Your task to perform on an android device: set the timer Image 0: 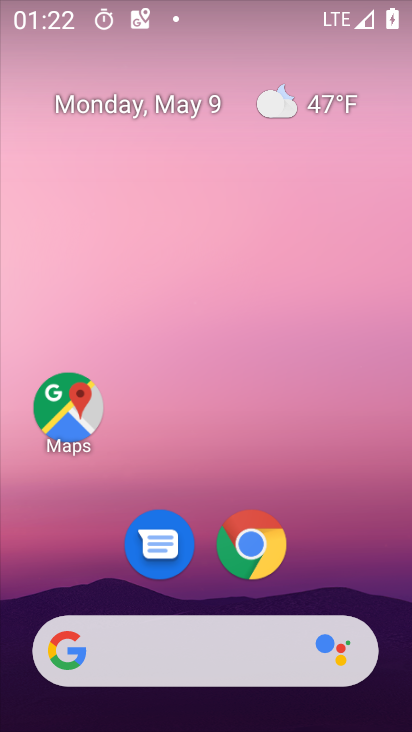
Step 0: drag from (305, 622) to (277, 5)
Your task to perform on an android device: set the timer Image 1: 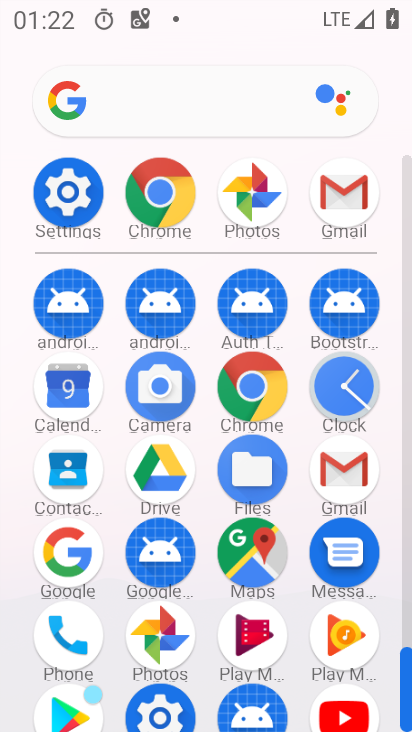
Step 1: click (339, 384)
Your task to perform on an android device: set the timer Image 2: 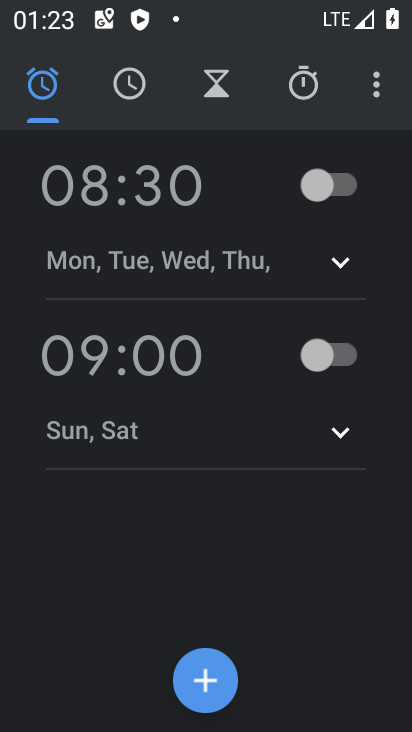
Step 2: click (211, 93)
Your task to perform on an android device: set the timer Image 3: 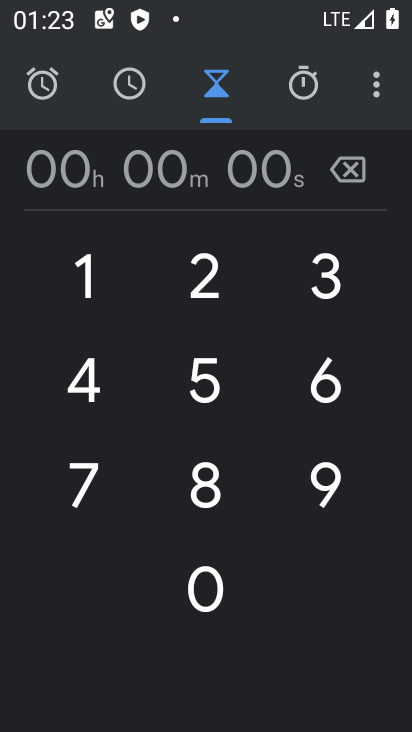
Step 3: click (205, 497)
Your task to perform on an android device: set the timer Image 4: 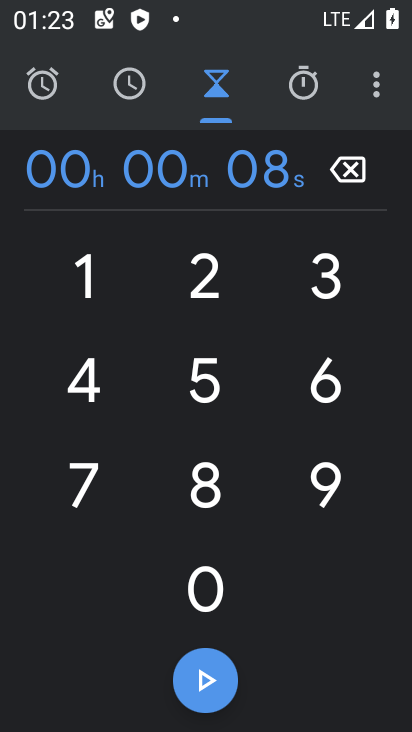
Step 4: click (330, 485)
Your task to perform on an android device: set the timer Image 5: 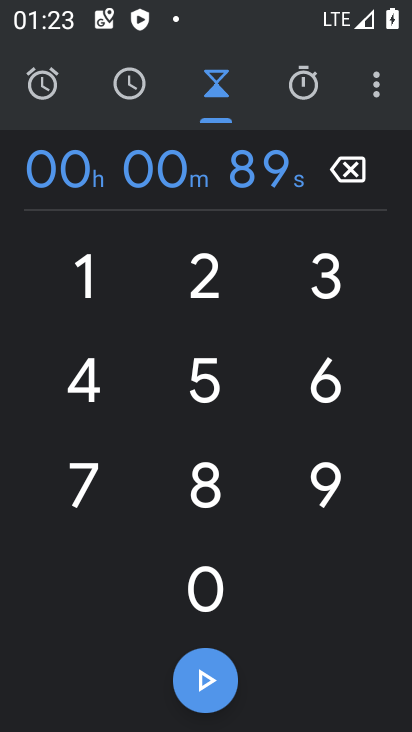
Step 5: click (195, 384)
Your task to perform on an android device: set the timer Image 6: 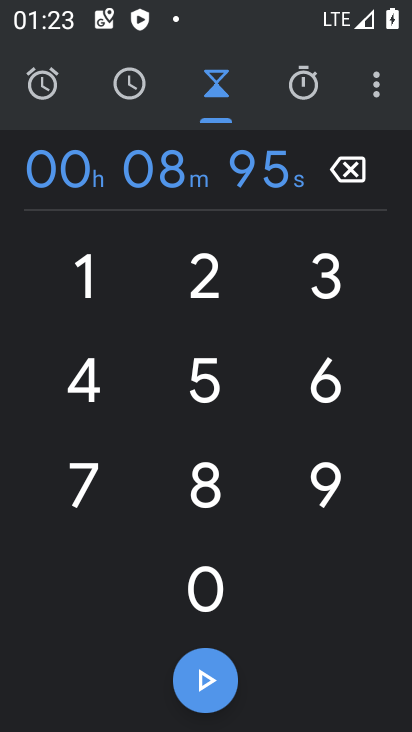
Step 6: click (208, 272)
Your task to perform on an android device: set the timer Image 7: 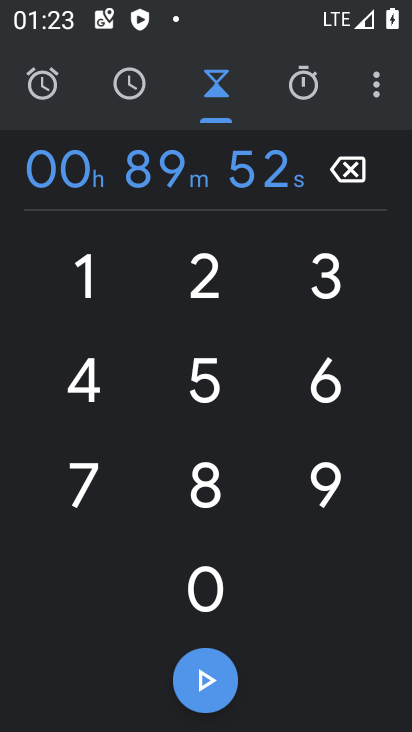
Step 7: click (327, 268)
Your task to perform on an android device: set the timer Image 8: 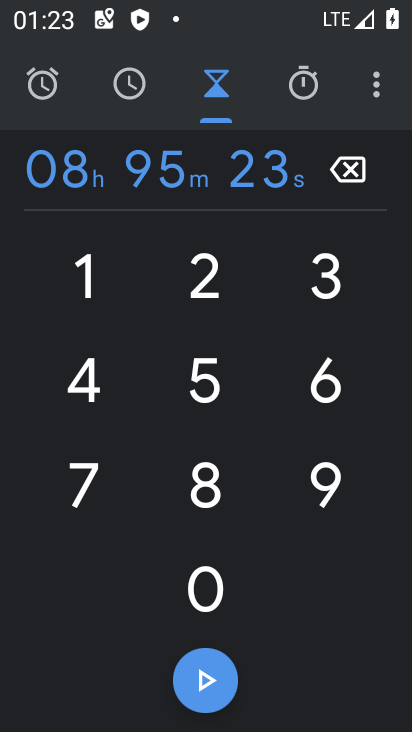
Step 8: click (190, 284)
Your task to perform on an android device: set the timer Image 9: 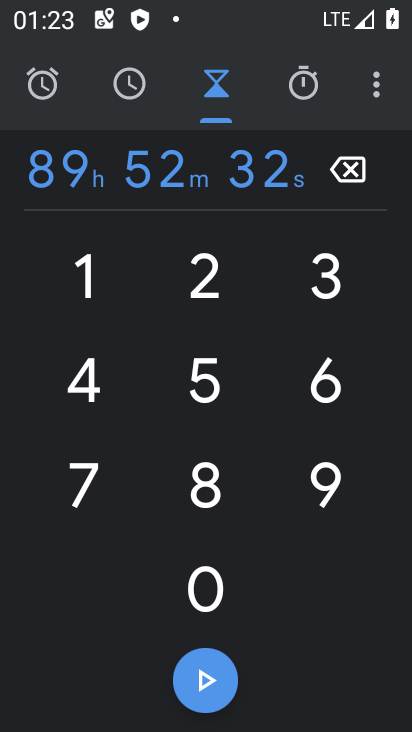
Step 9: click (216, 673)
Your task to perform on an android device: set the timer Image 10: 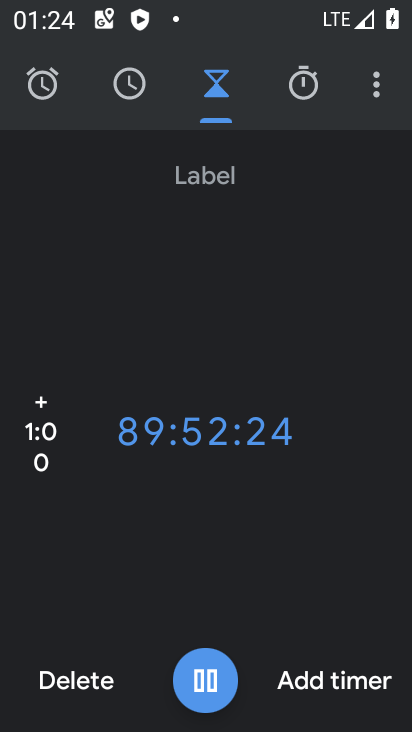
Step 10: task complete